Your task to perform on an android device: Open battery settings Image 0: 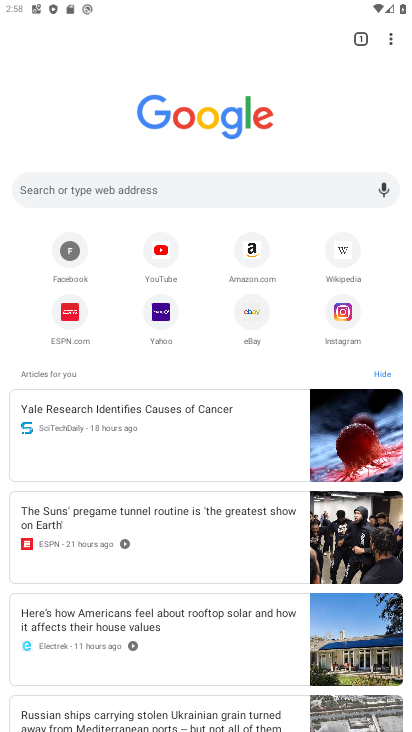
Step 0: press home button
Your task to perform on an android device: Open battery settings Image 1: 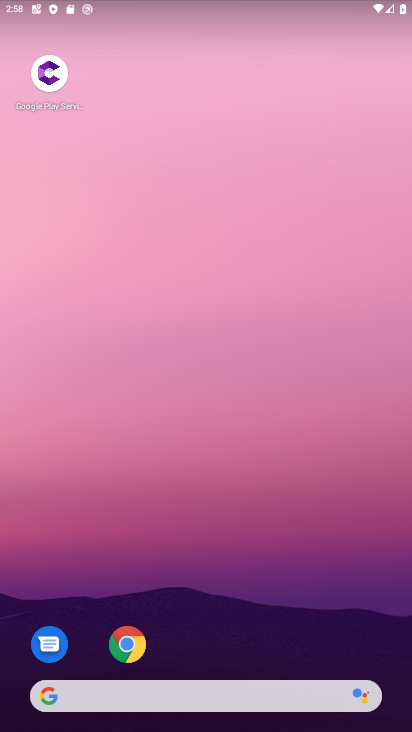
Step 1: drag from (248, 282) to (248, 155)
Your task to perform on an android device: Open battery settings Image 2: 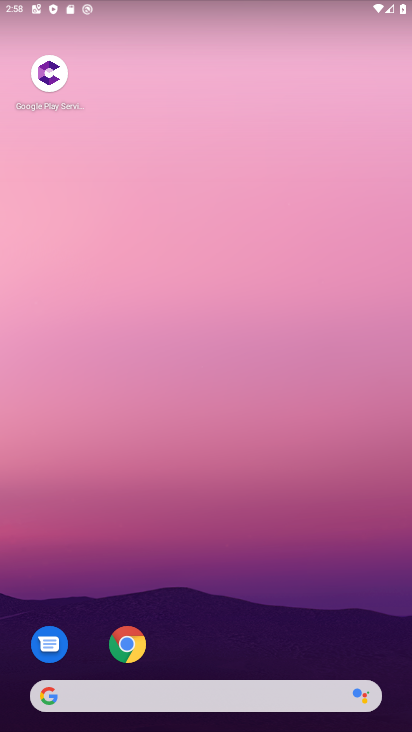
Step 2: drag from (193, 211) to (194, 47)
Your task to perform on an android device: Open battery settings Image 3: 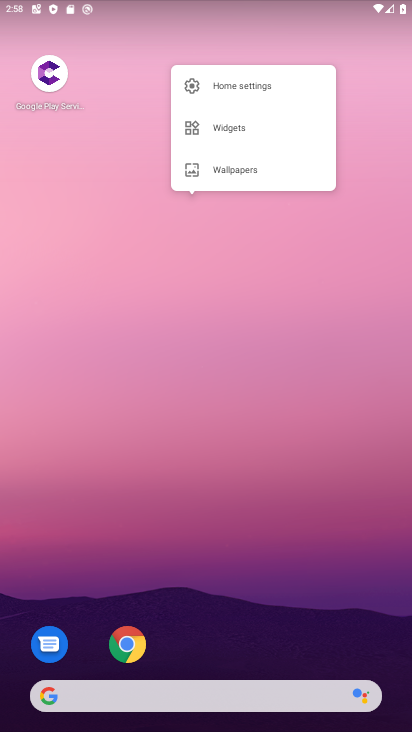
Step 3: click (210, 592)
Your task to perform on an android device: Open battery settings Image 4: 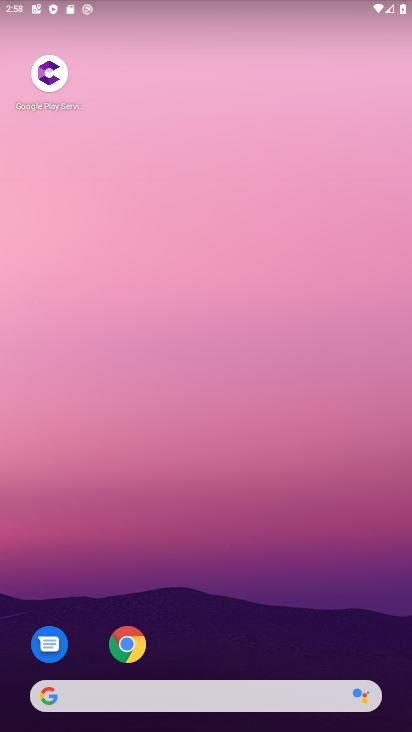
Step 4: drag from (215, 364) to (236, 110)
Your task to perform on an android device: Open battery settings Image 5: 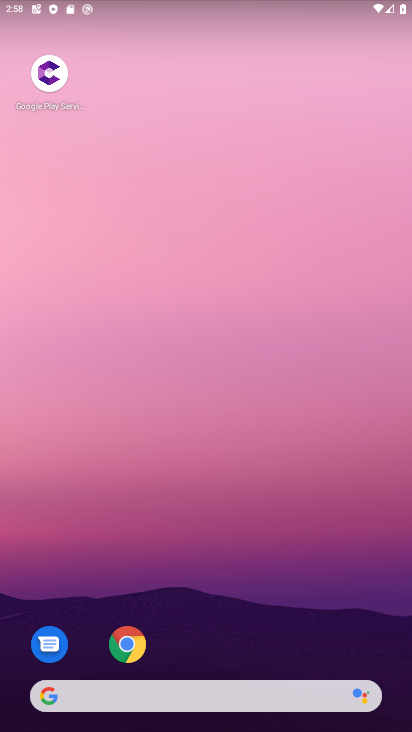
Step 5: drag from (226, 648) to (298, 90)
Your task to perform on an android device: Open battery settings Image 6: 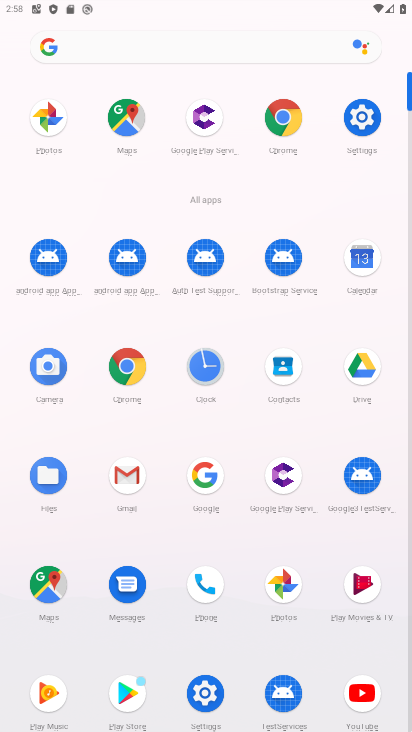
Step 6: click (357, 124)
Your task to perform on an android device: Open battery settings Image 7: 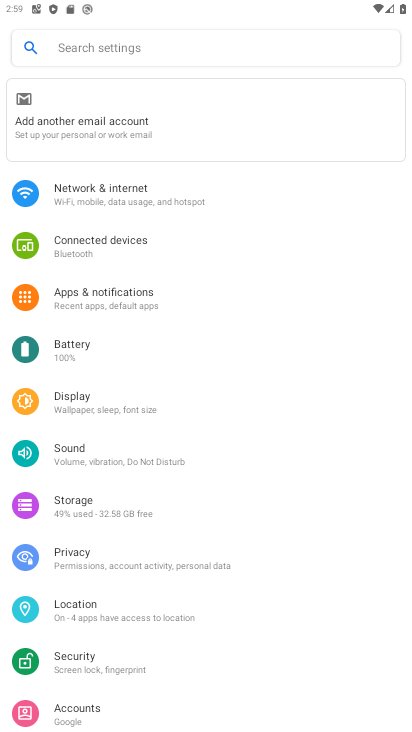
Step 7: press home button
Your task to perform on an android device: Open battery settings Image 8: 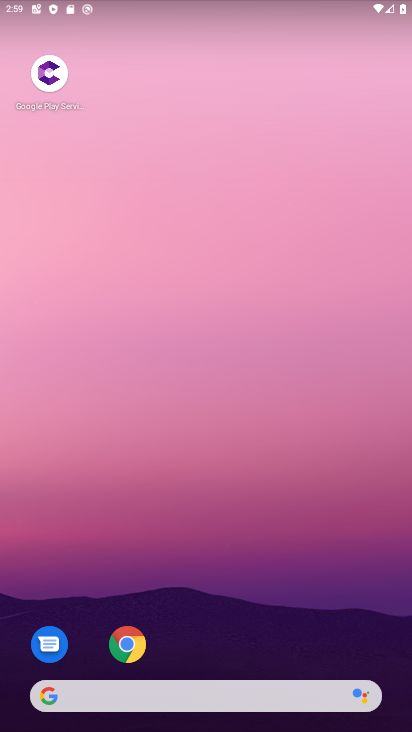
Step 8: drag from (174, 657) to (195, 136)
Your task to perform on an android device: Open battery settings Image 9: 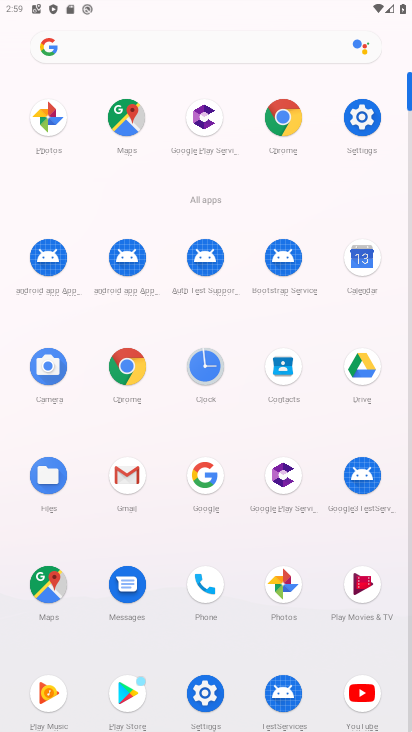
Step 9: click (368, 124)
Your task to perform on an android device: Open battery settings Image 10: 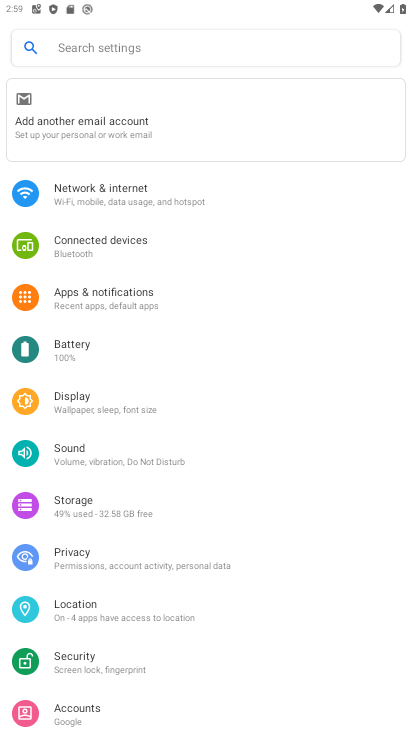
Step 10: click (75, 360)
Your task to perform on an android device: Open battery settings Image 11: 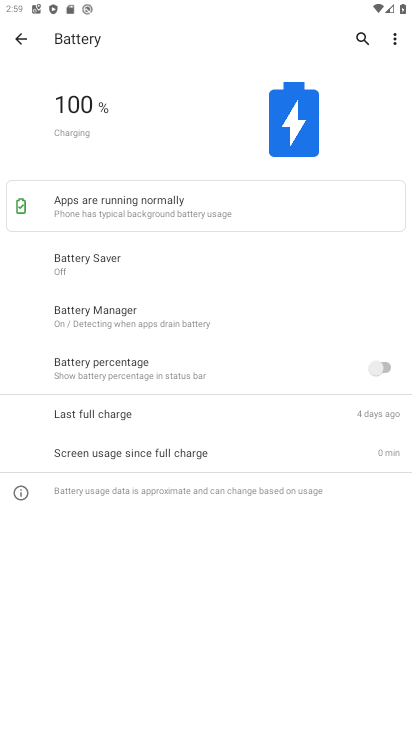
Step 11: task complete